Your task to perform on an android device: Go to location settings Image 0: 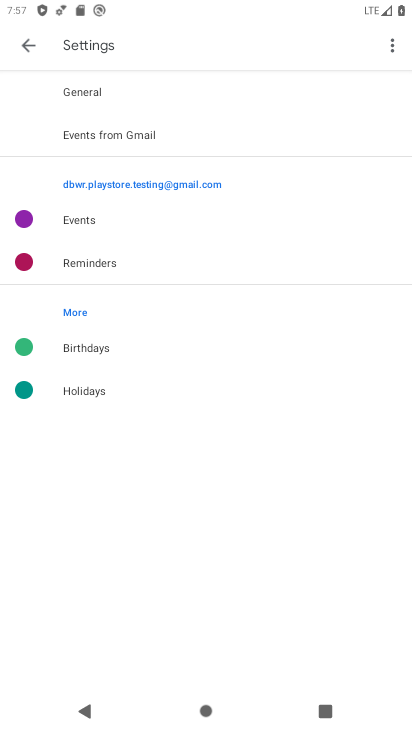
Step 0: press home button
Your task to perform on an android device: Go to location settings Image 1: 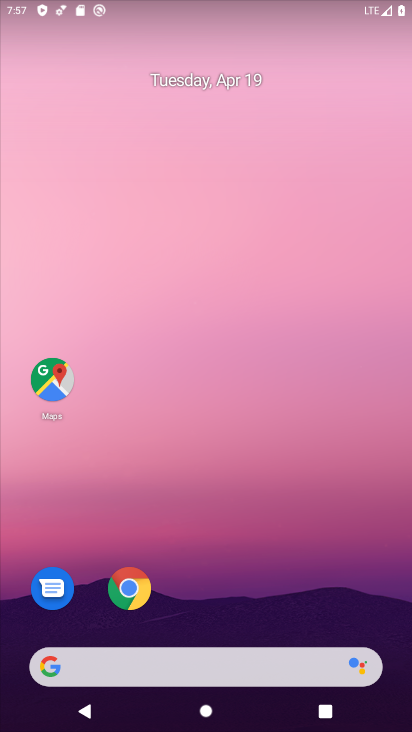
Step 1: drag from (214, 455) to (244, 6)
Your task to perform on an android device: Go to location settings Image 2: 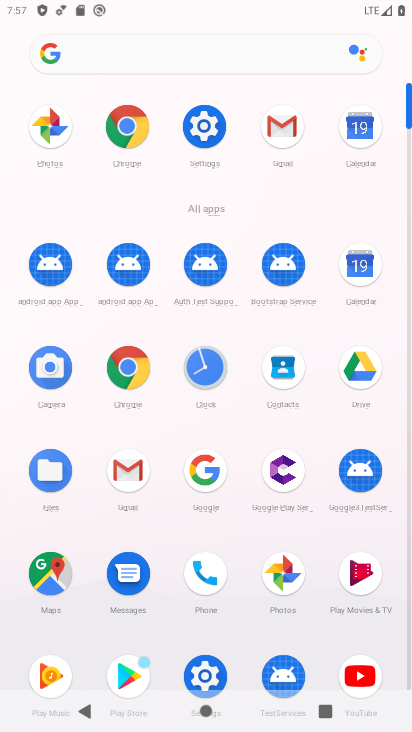
Step 2: click (206, 666)
Your task to perform on an android device: Go to location settings Image 3: 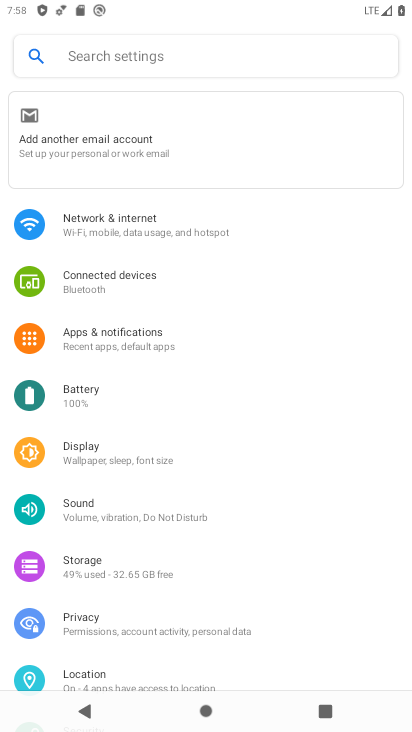
Step 3: click (111, 669)
Your task to perform on an android device: Go to location settings Image 4: 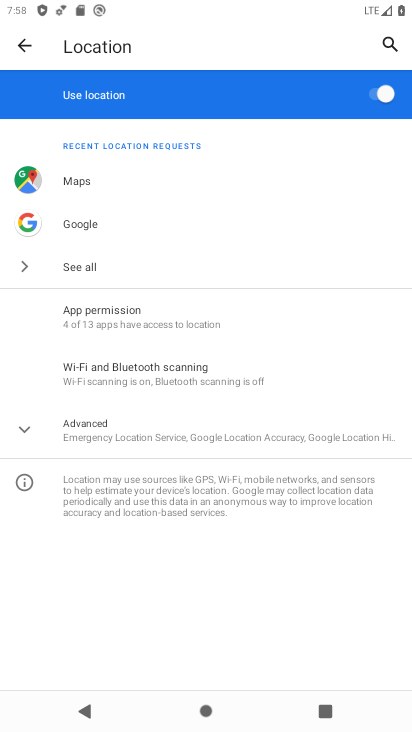
Step 4: click (30, 429)
Your task to perform on an android device: Go to location settings Image 5: 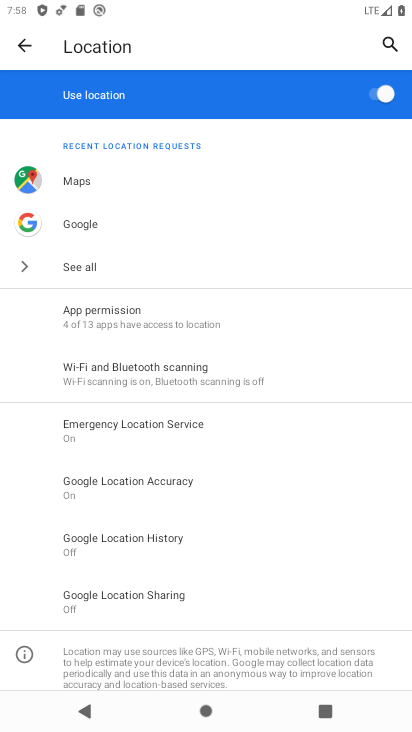
Step 5: task complete